Your task to perform on an android device: all mails in gmail Image 0: 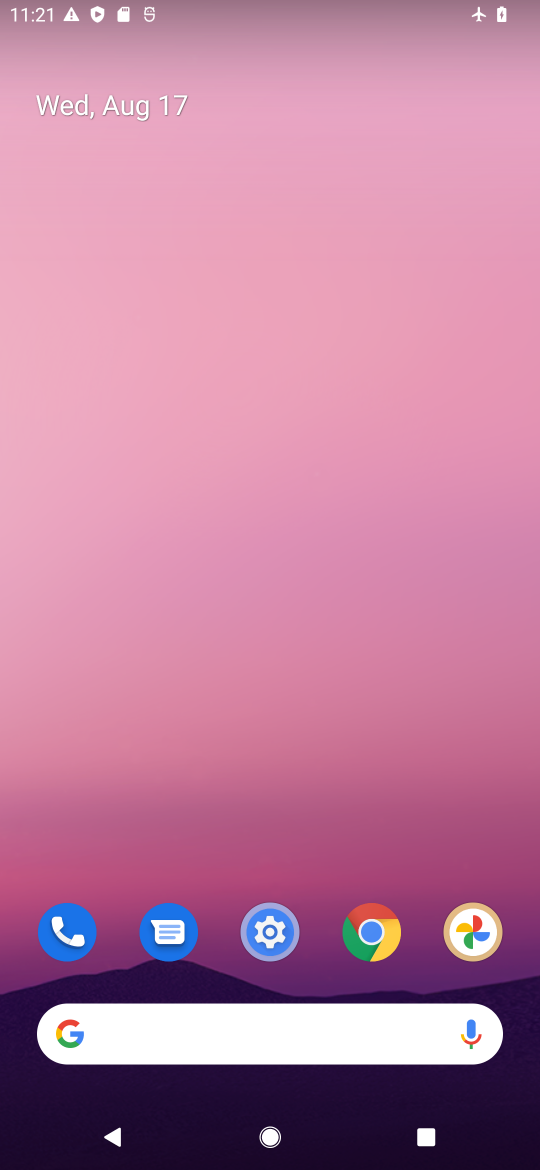
Step 0: drag from (297, 848) to (305, 161)
Your task to perform on an android device: all mails in gmail Image 1: 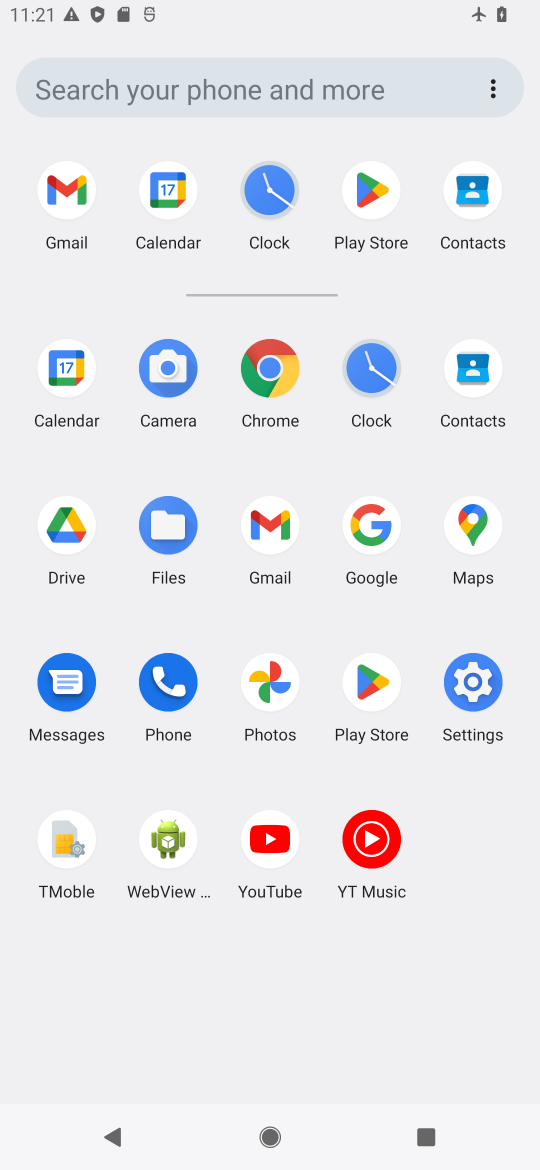
Step 1: click (274, 529)
Your task to perform on an android device: all mails in gmail Image 2: 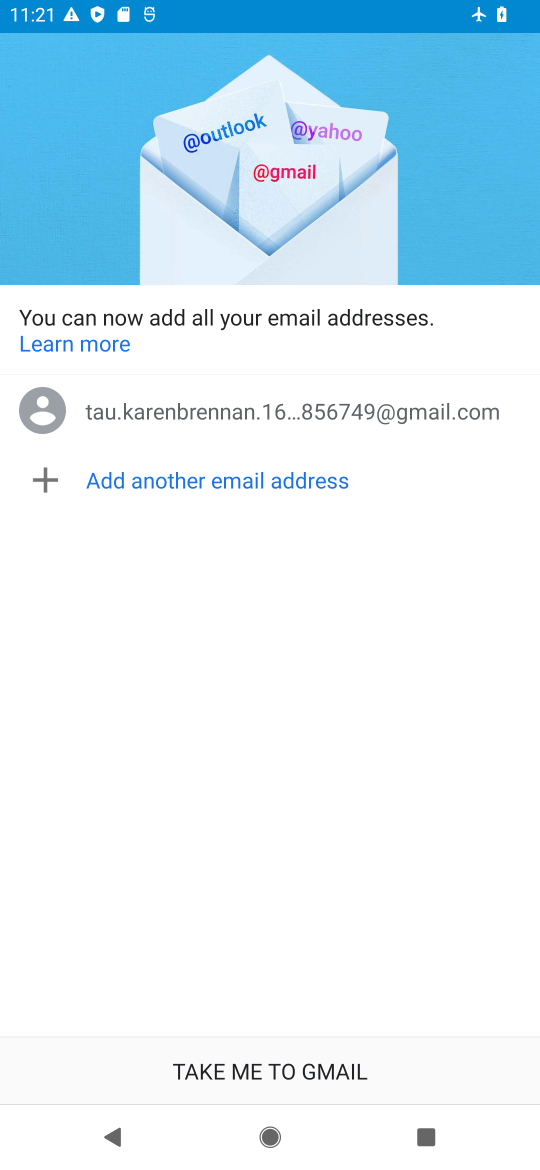
Step 2: click (292, 1082)
Your task to perform on an android device: all mails in gmail Image 3: 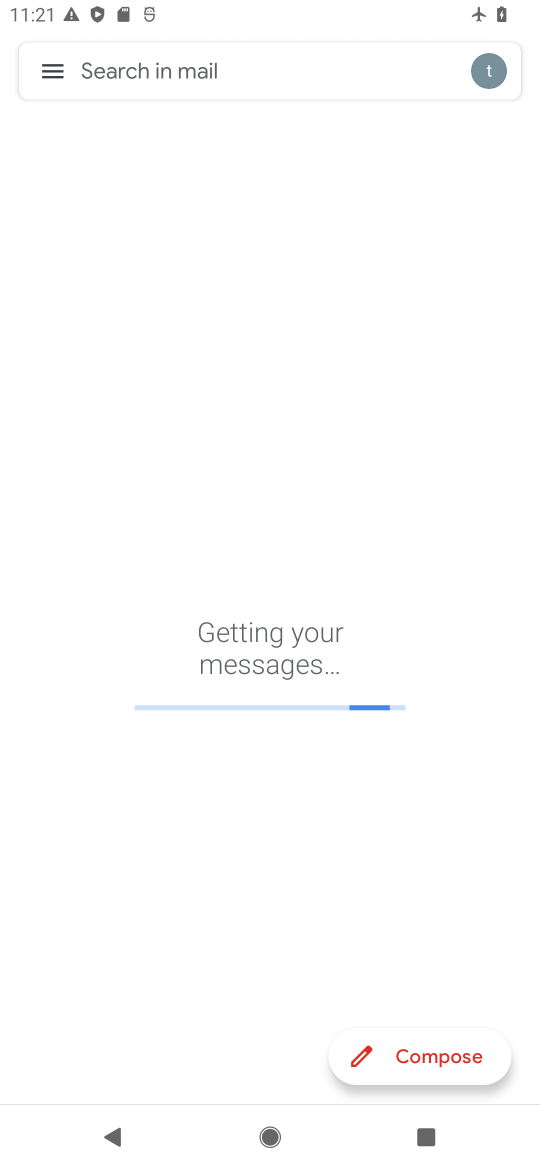
Step 3: click (53, 76)
Your task to perform on an android device: all mails in gmail Image 4: 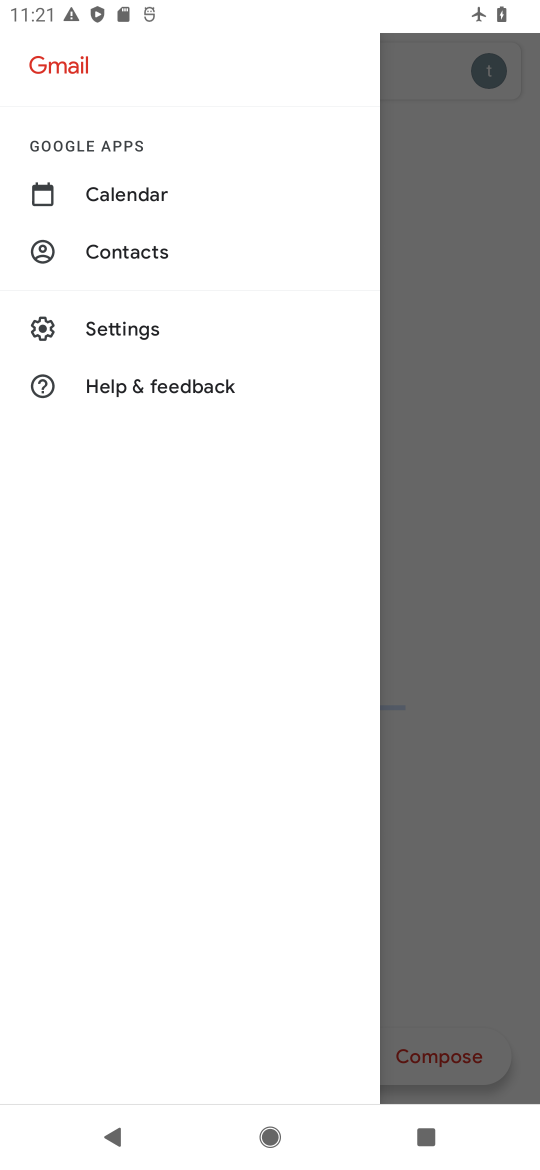
Step 4: click (397, 348)
Your task to perform on an android device: all mails in gmail Image 5: 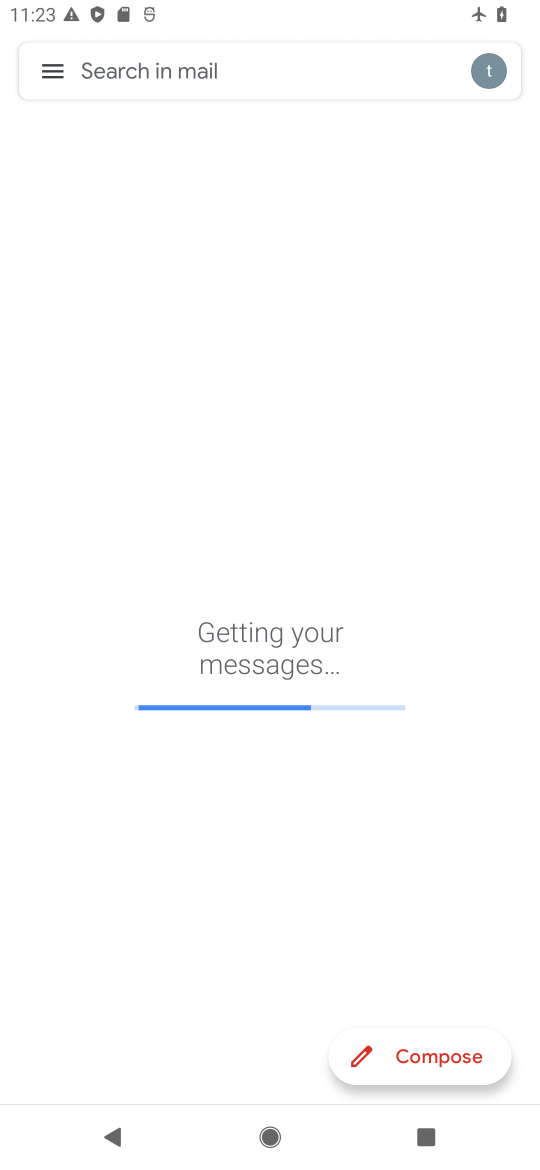
Step 5: click (59, 78)
Your task to perform on an android device: all mails in gmail Image 6: 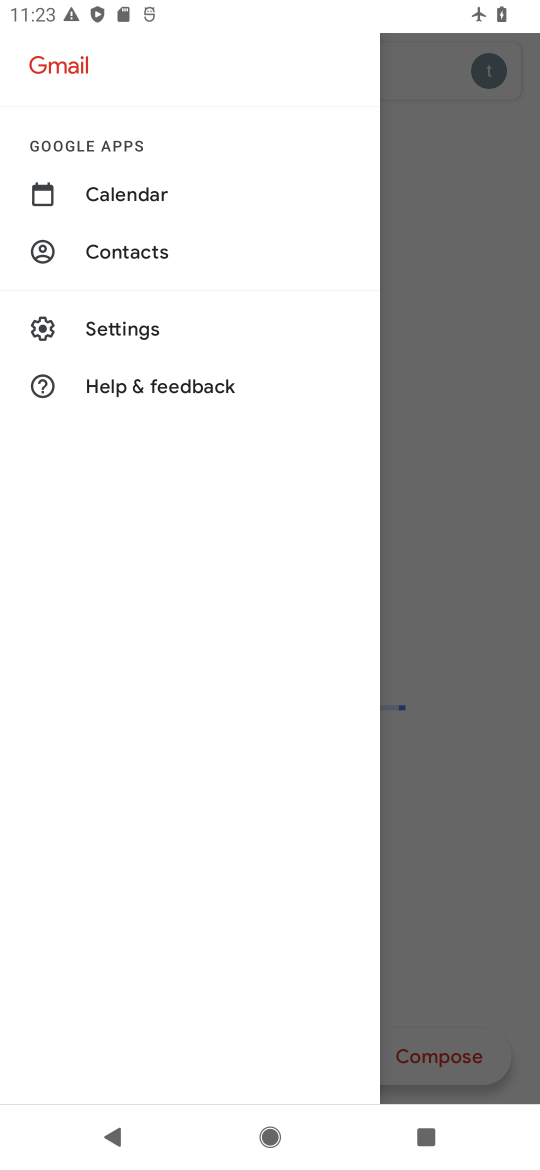
Step 6: task complete